Your task to perform on an android device: Go to internet settings Image 0: 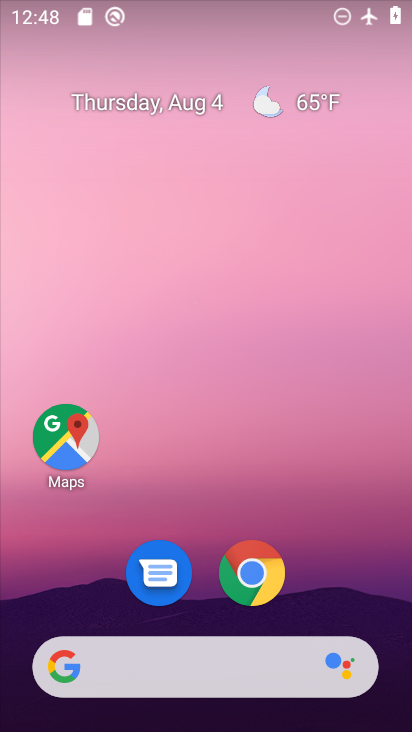
Step 0: drag from (306, 616) to (276, 137)
Your task to perform on an android device: Go to internet settings Image 1: 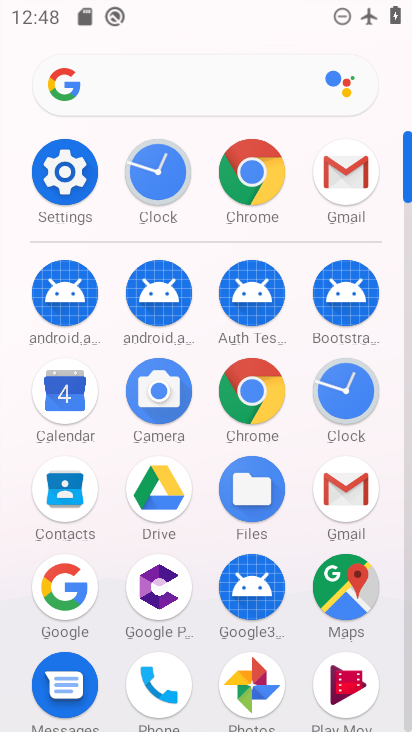
Step 1: click (54, 181)
Your task to perform on an android device: Go to internet settings Image 2: 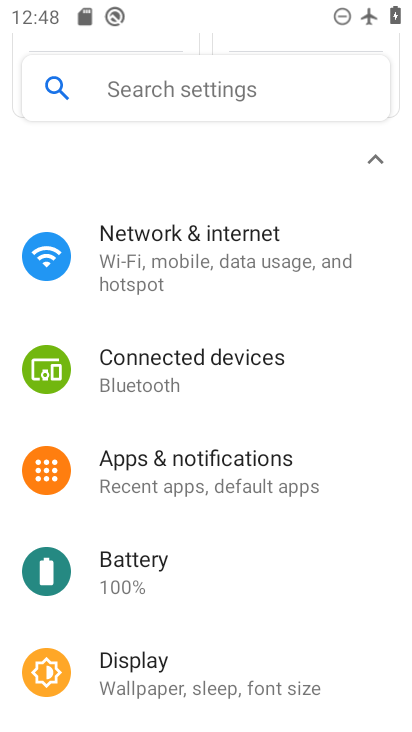
Step 2: click (173, 253)
Your task to perform on an android device: Go to internet settings Image 3: 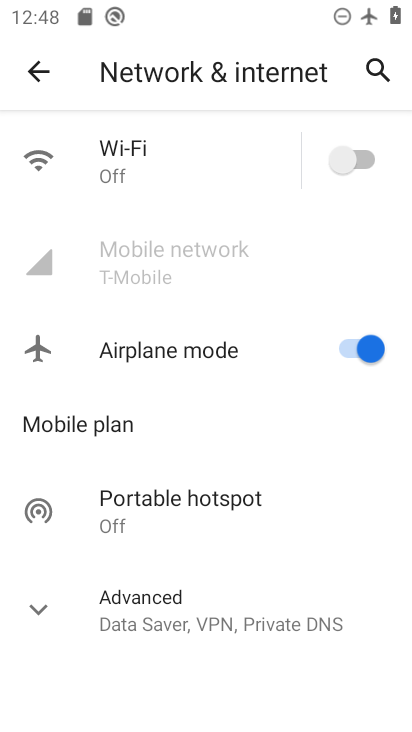
Step 3: click (215, 617)
Your task to perform on an android device: Go to internet settings Image 4: 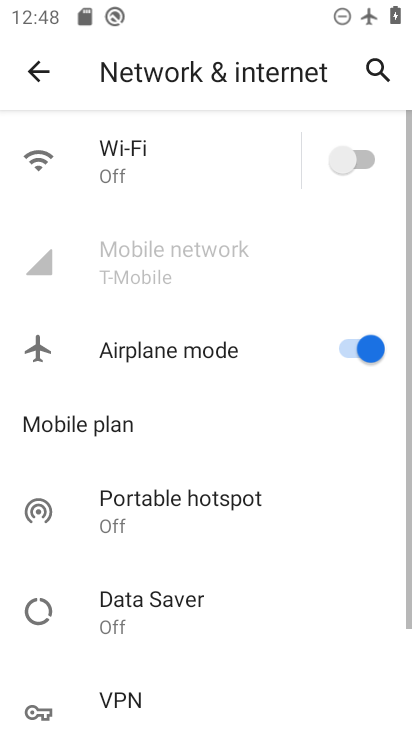
Step 4: task complete